Your task to perform on an android device: turn off smart reply in the gmail app Image 0: 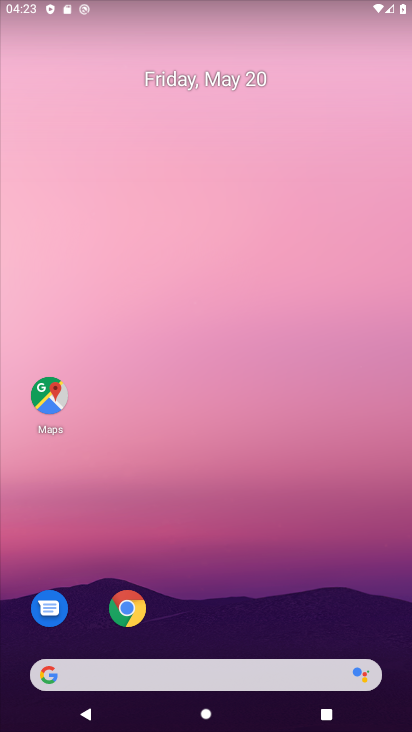
Step 0: drag from (218, 641) to (159, 66)
Your task to perform on an android device: turn off smart reply in the gmail app Image 1: 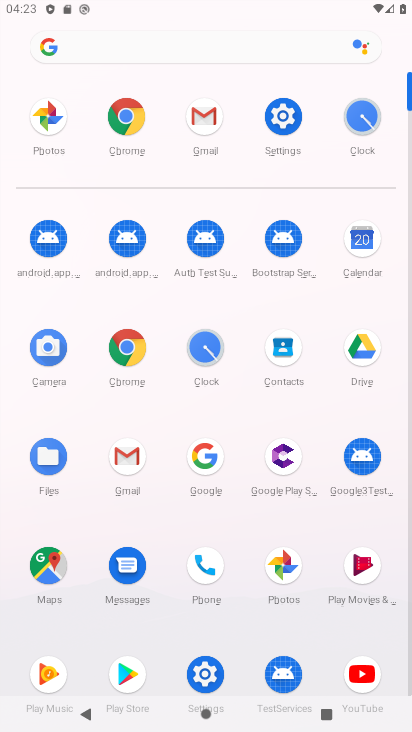
Step 1: click (106, 463)
Your task to perform on an android device: turn off smart reply in the gmail app Image 2: 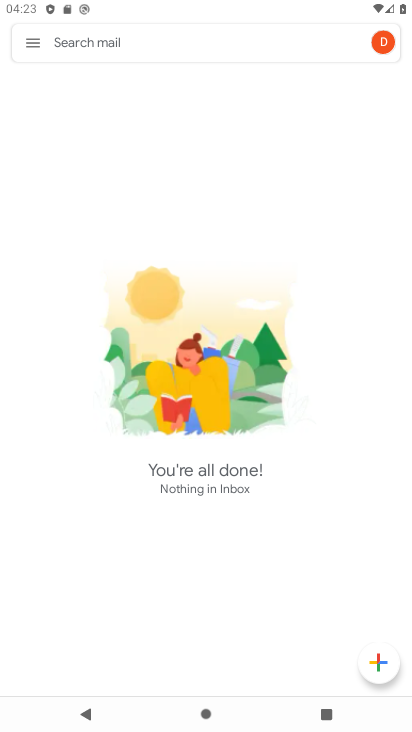
Step 2: click (41, 40)
Your task to perform on an android device: turn off smart reply in the gmail app Image 3: 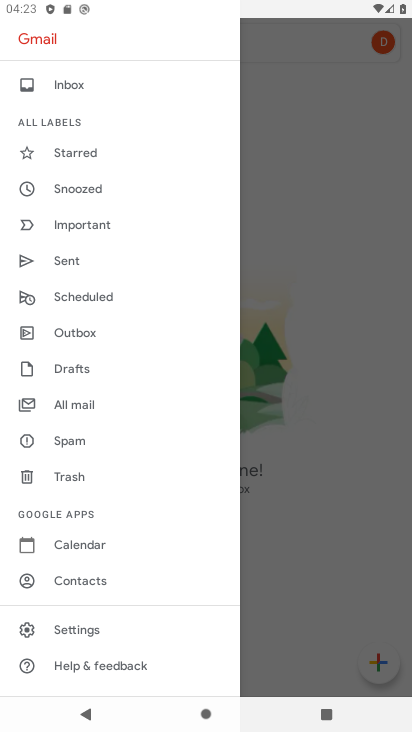
Step 3: click (51, 634)
Your task to perform on an android device: turn off smart reply in the gmail app Image 4: 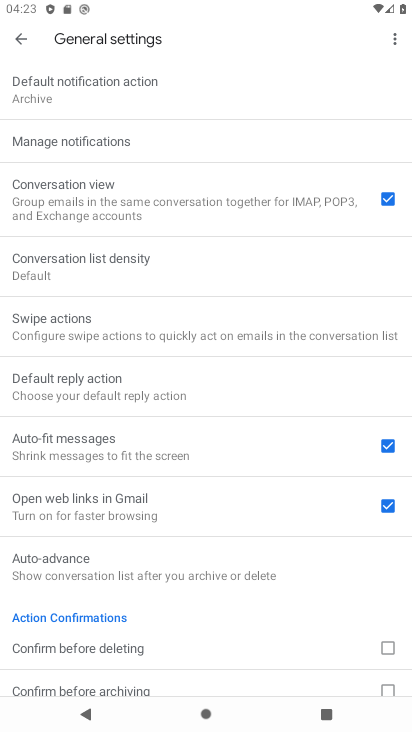
Step 4: click (15, 26)
Your task to perform on an android device: turn off smart reply in the gmail app Image 5: 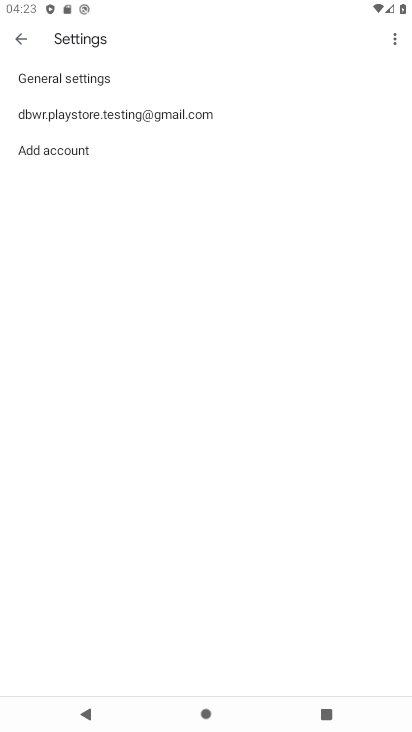
Step 5: click (44, 104)
Your task to perform on an android device: turn off smart reply in the gmail app Image 6: 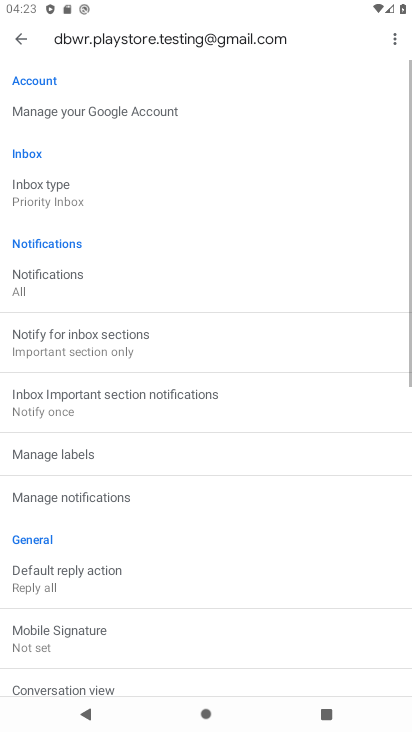
Step 6: drag from (163, 623) to (136, 233)
Your task to perform on an android device: turn off smart reply in the gmail app Image 7: 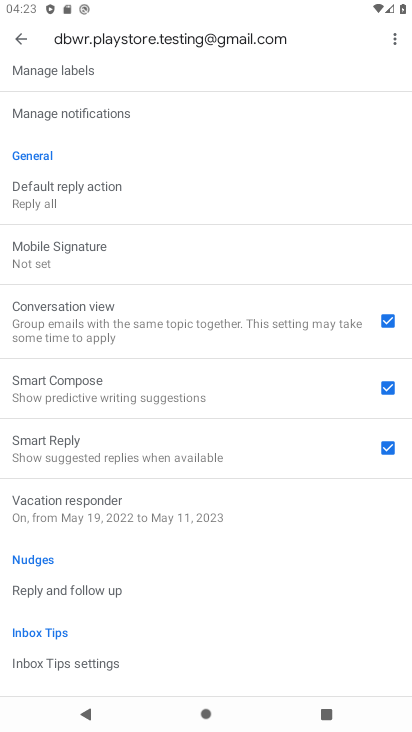
Step 7: click (384, 445)
Your task to perform on an android device: turn off smart reply in the gmail app Image 8: 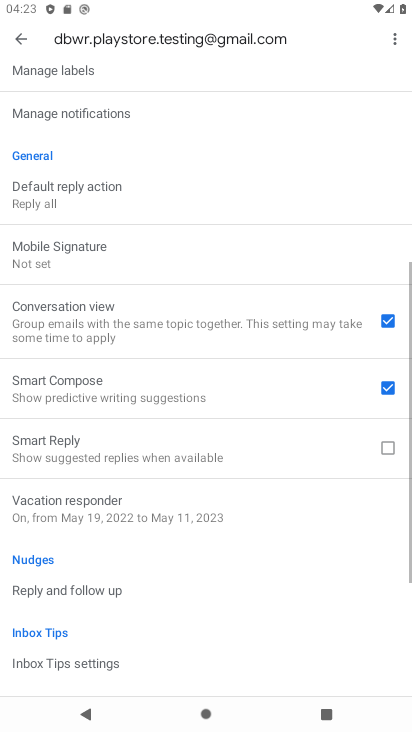
Step 8: task complete